Your task to perform on an android device: Open Android settings Image 0: 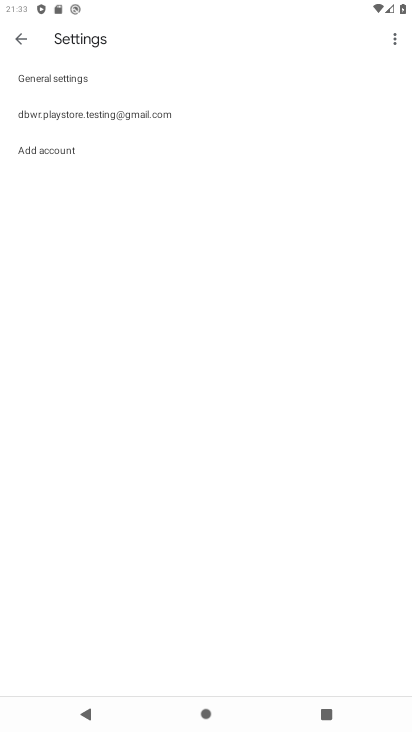
Step 0: press home button
Your task to perform on an android device: Open Android settings Image 1: 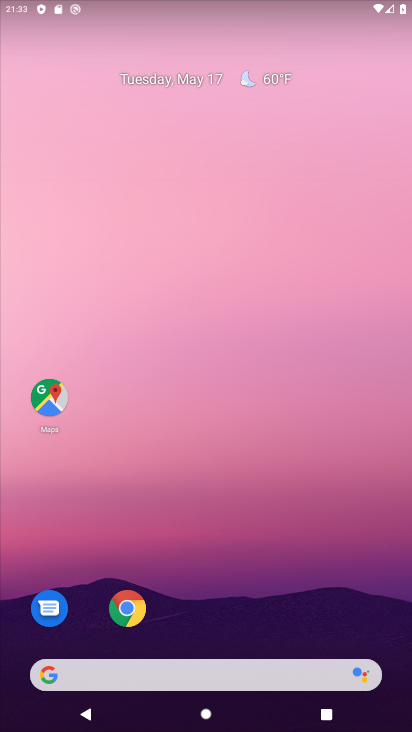
Step 1: drag from (242, 529) to (145, 152)
Your task to perform on an android device: Open Android settings Image 2: 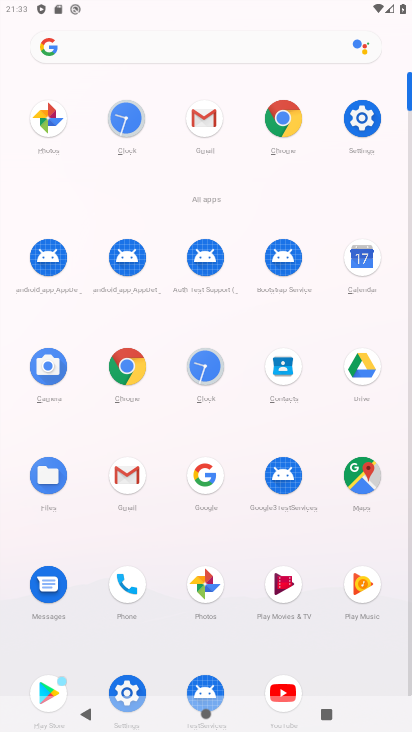
Step 2: click (365, 117)
Your task to perform on an android device: Open Android settings Image 3: 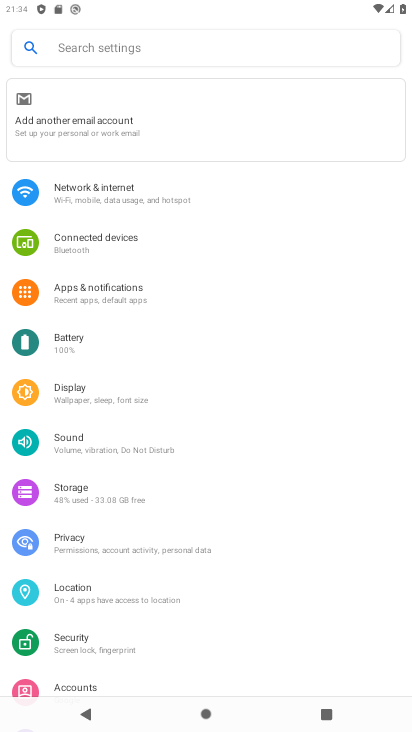
Step 3: task complete